Your task to perform on an android device: turn off wifi Image 0: 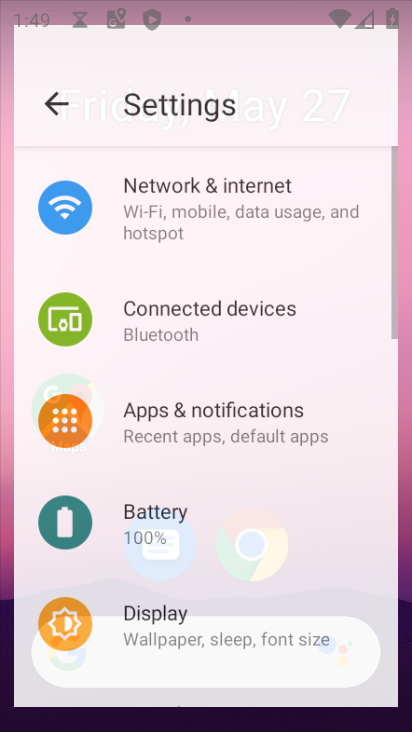
Step 0: drag from (337, 569) to (201, 42)
Your task to perform on an android device: turn off wifi Image 1: 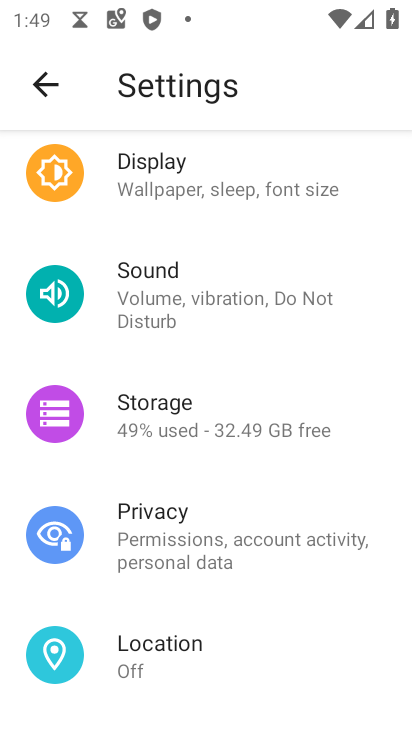
Step 1: drag from (227, 253) to (234, 713)
Your task to perform on an android device: turn off wifi Image 2: 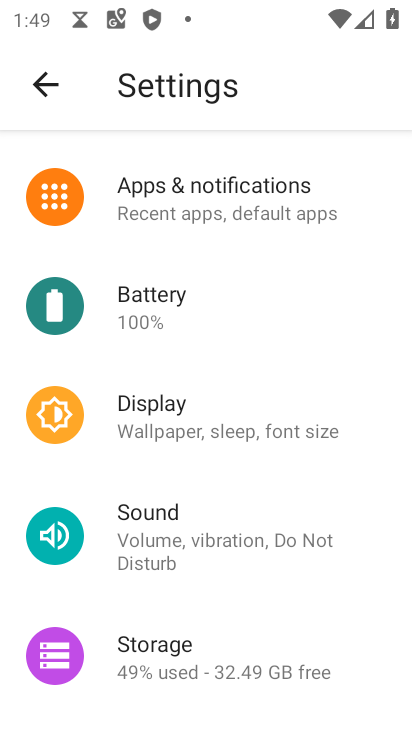
Step 2: drag from (238, 200) to (256, 711)
Your task to perform on an android device: turn off wifi Image 3: 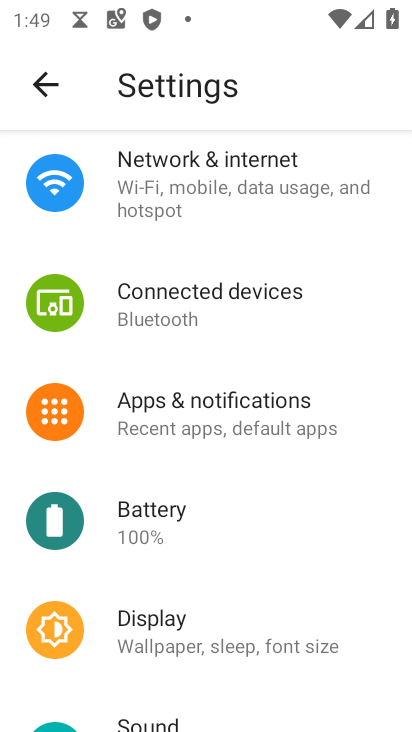
Step 3: click (203, 202)
Your task to perform on an android device: turn off wifi Image 4: 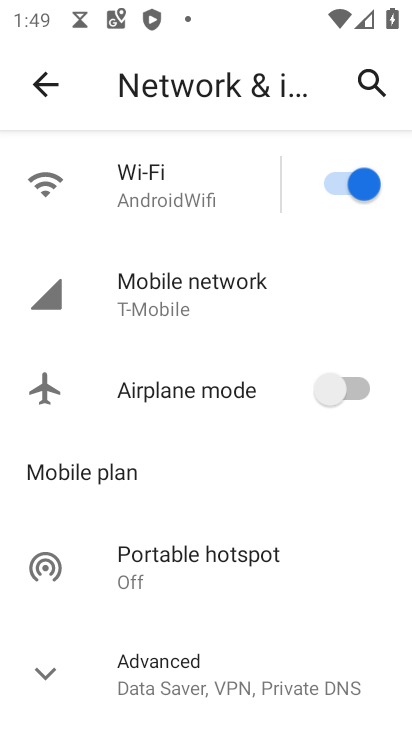
Step 4: click (348, 177)
Your task to perform on an android device: turn off wifi Image 5: 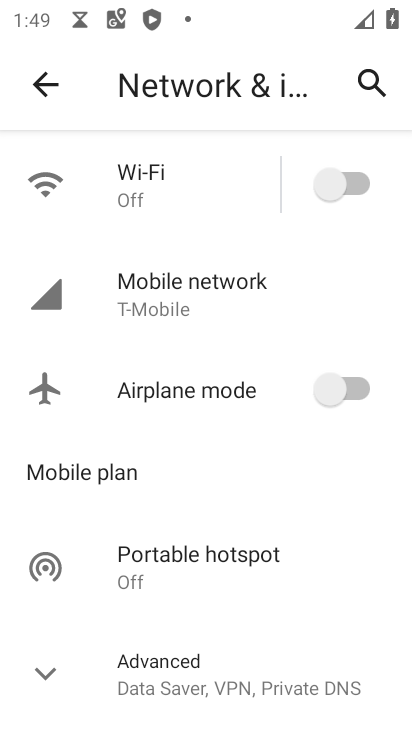
Step 5: task complete